Your task to perform on an android device: open a new tab in the chrome app Image 0: 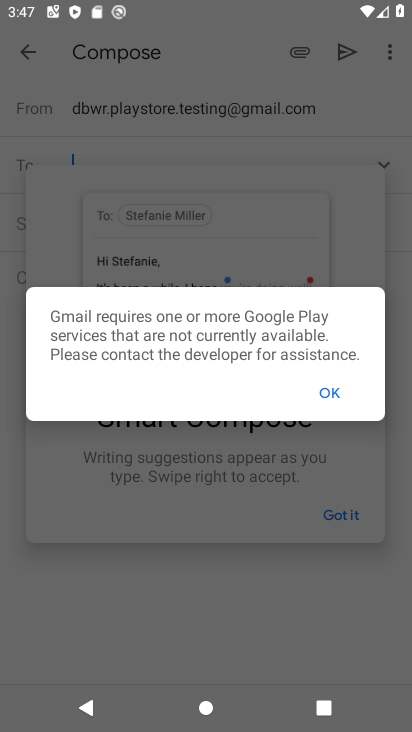
Step 0: press home button
Your task to perform on an android device: open a new tab in the chrome app Image 1: 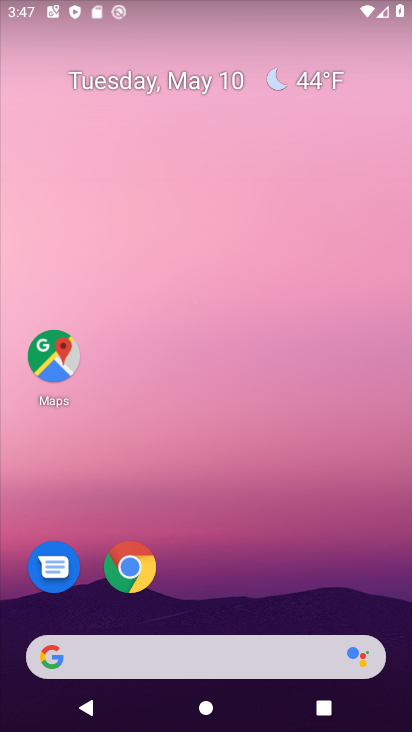
Step 1: click (216, 378)
Your task to perform on an android device: open a new tab in the chrome app Image 2: 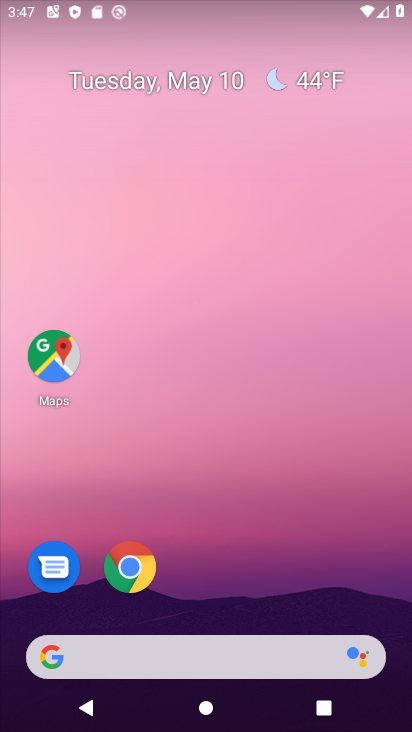
Step 2: click (127, 565)
Your task to perform on an android device: open a new tab in the chrome app Image 3: 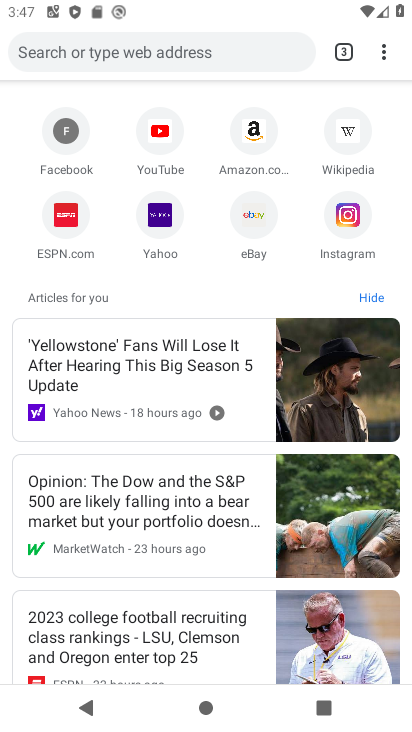
Step 3: click (385, 55)
Your task to perform on an android device: open a new tab in the chrome app Image 4: 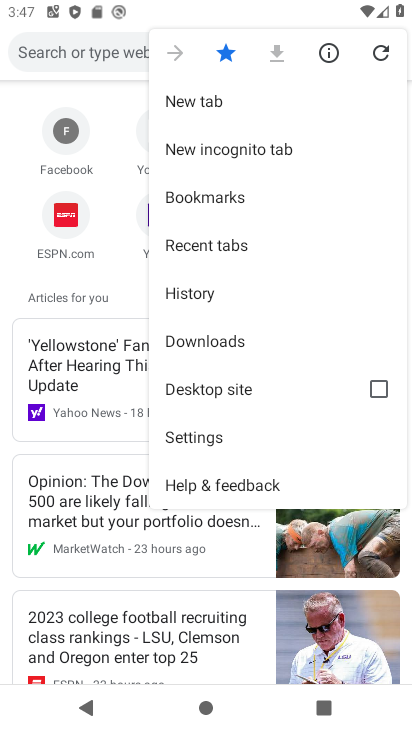
Step 4: click (222, 104)
Your task to perform on an android device: open a new tab in the chrome app Image 5: 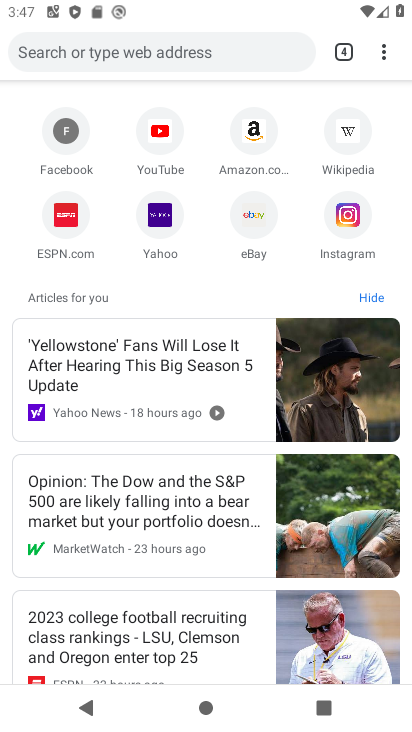
Step 5: task complete